Your task to perform on an android device: see creations saved in the google photos Image 0: 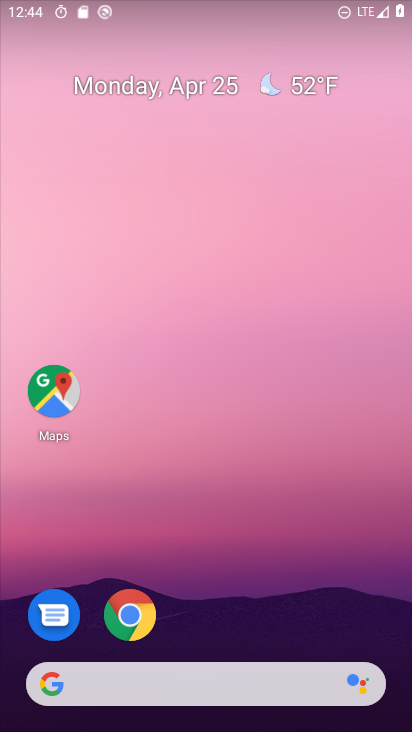
Step 0: drag from (200, 645) to (186, 23)
Your task to perform on an android device: see creations saved in the google photos Image 1: 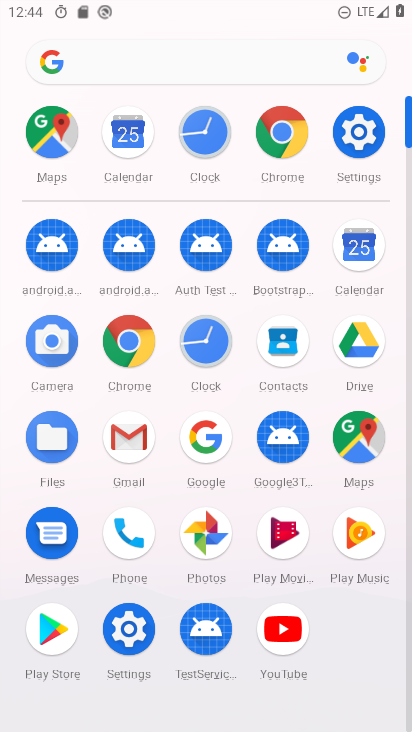
Step 1: click (206, 536)
Your task to perform on an android device: see creations saved in the google photos Image 2: 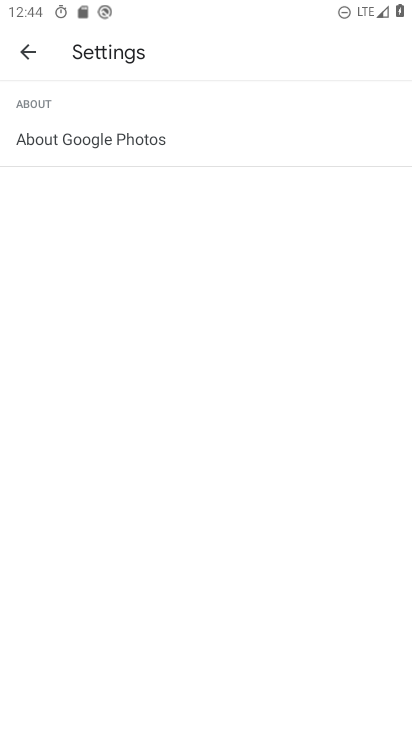
Step 2: click (11, 47)
Your task to perform on an android device: see creations saved in the google photos Image 3: 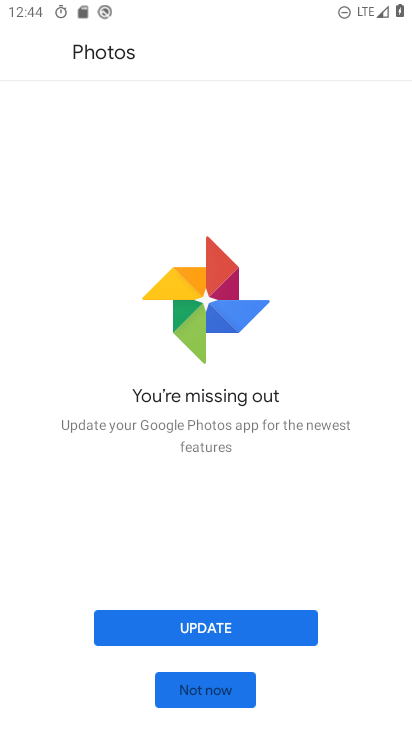
Step 3: click (201, 687)
Your task to perform on an android device: see creations saved in the google photos Image 4: 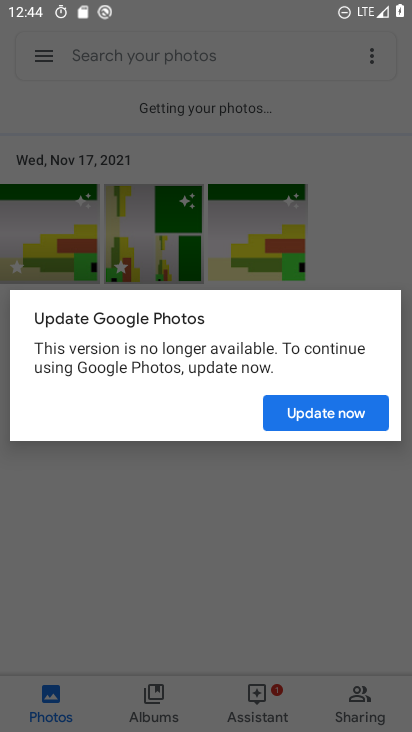
Step 4: click (308, 418)
Your task to perform on an android device: see creations saved in the google photos Image 5: 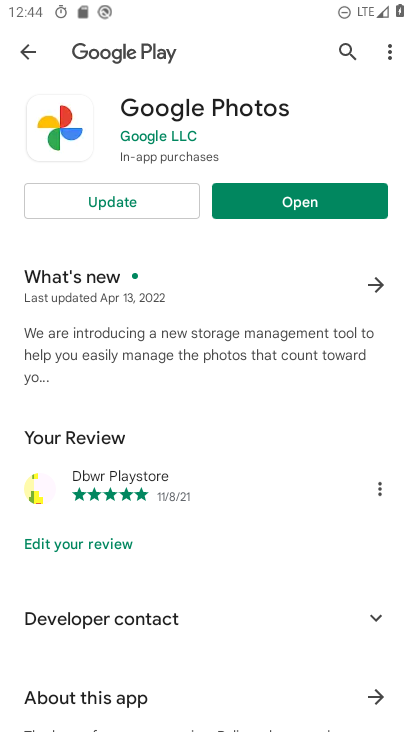
Step 5: click (268, 209)
Your task to perform on an android device: see creations saved in the google photos Image 6: 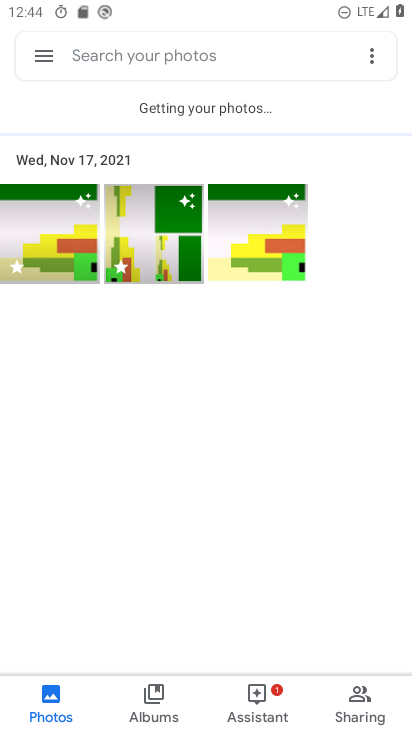
Step 6: click (146, 54)
Your task to perform on an android device: see creations saved in the google photos Image 7: 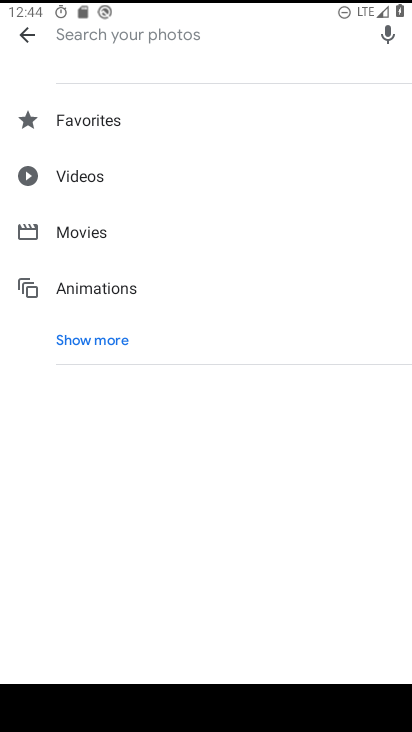
Step 7: click (103, 331)
Your task to perform on an android device: see creations saved in the google photos Image 8: 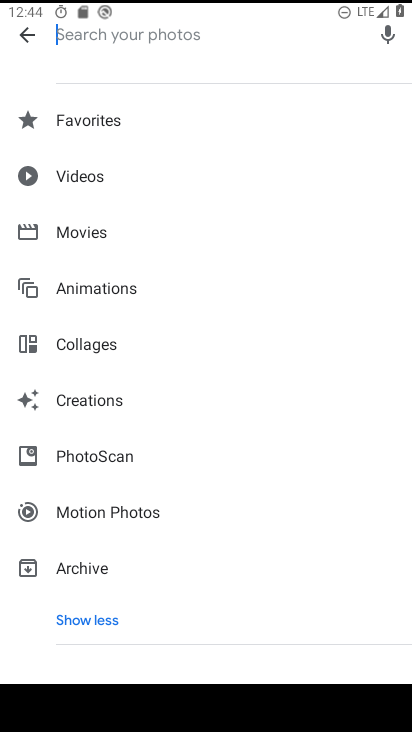
Step 8: click (83, 401)
Your task to perform on an android device: see creations saved in the google photos Image 9: 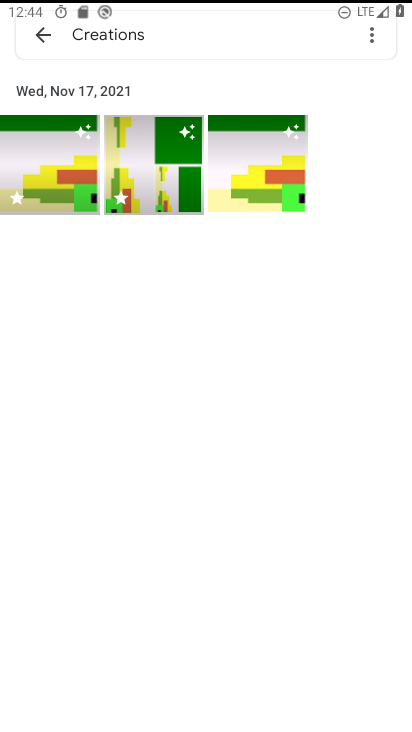
Step 9: task complete